Your task to perform on an android device: toggle location history Image 0: 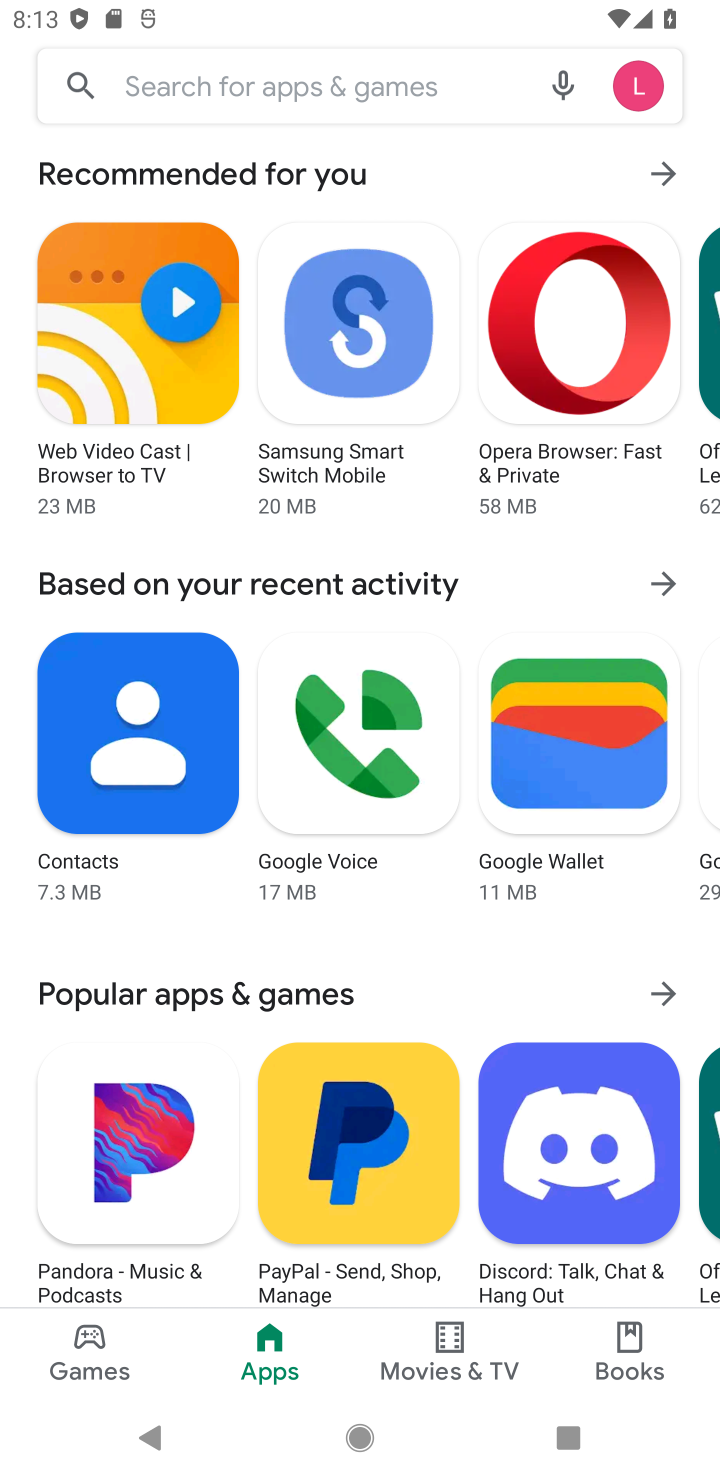
Step 0: task complete